Your task to perform on an android device: Open the stopwatch Image 0: 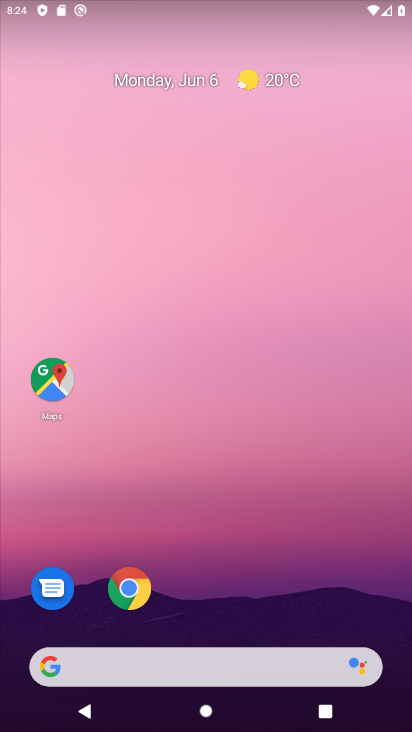
Step 0: drag from (303, 353) to (236, 6)
Your task to perform on an android device: Open the stopwatch Image 1: 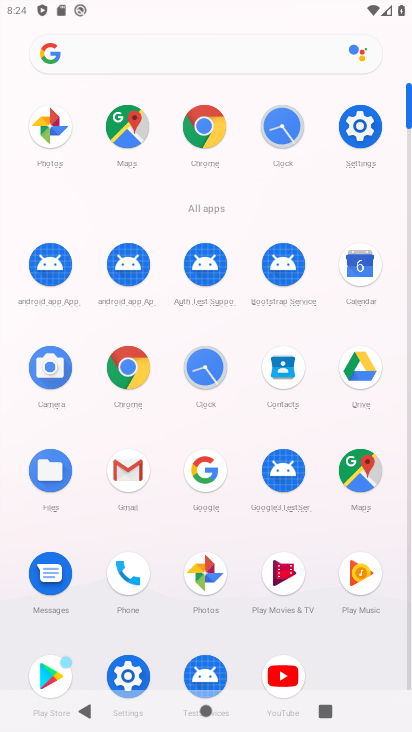
Step 1: click (276, 129)
Your task to perform on an android device: Open the stopwatch Image 2: 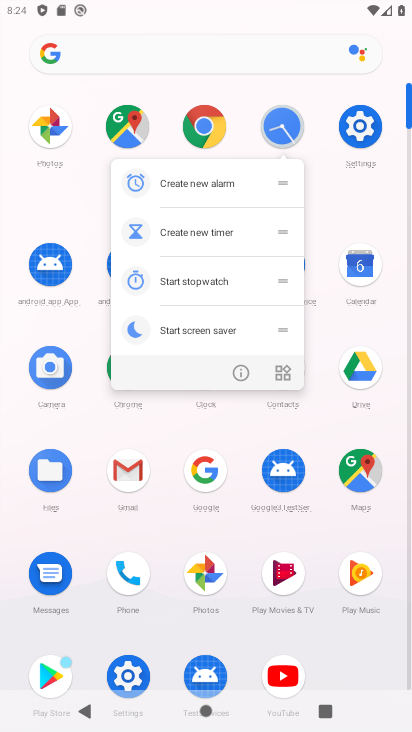
Step 2: click (269, 125)
Your task to perform on an android device: Open the stopwatch Image 3: 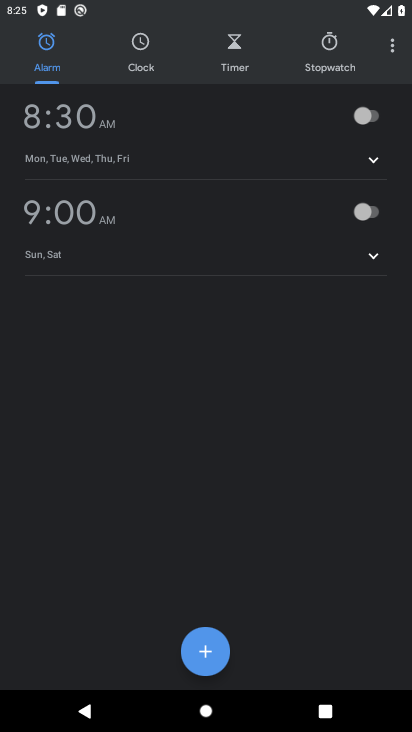
Step 3: click (334, 54)
Your task to perform on an android device: Open the stopwatch Image 4: 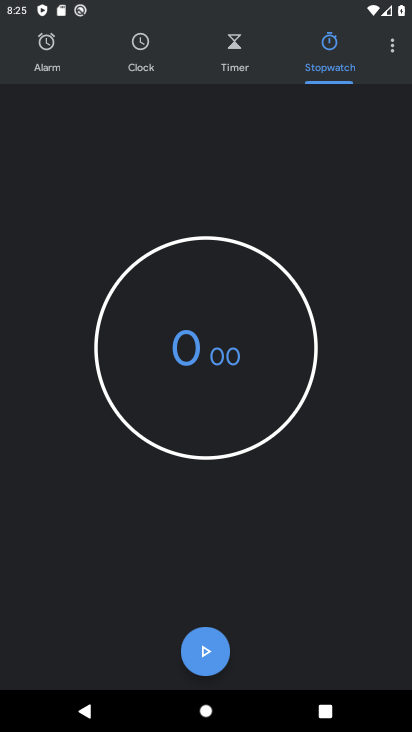
Step 4: task complete